Your task to perform on an android device: change notification settings in the gmail app Image 0: 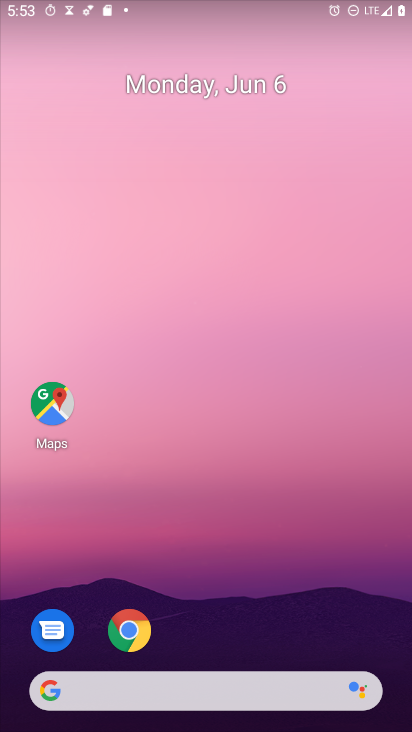
Step 0: drag from (296, 635) to (160, 0)
Your task to perform on an android device: change notification settings in the gmail app Image 1: 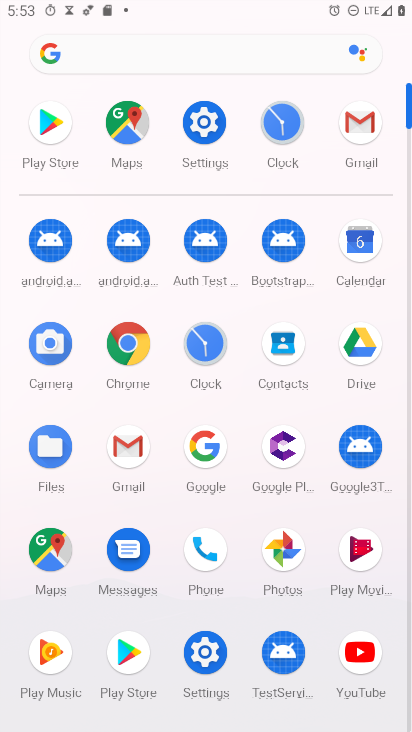
Step 1: click (135, 470)
Your task to perform on an android device: change notification settings in the gmail app Image 2: 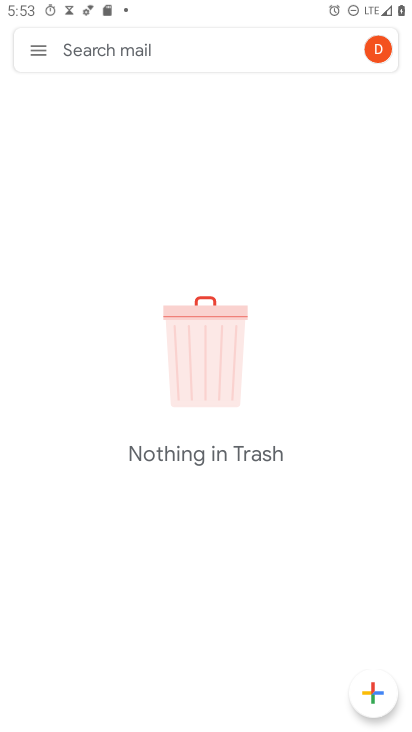
Step 2: click (35, 50)
Your task to perform on an android device: change notification settings in the gmail app Image 3: 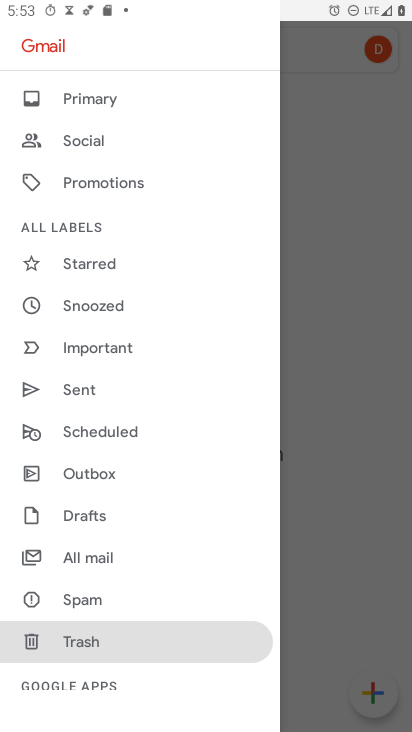
Step 3: drag from (131, 665) to (185, 355)
Your task to perform on an android device: change notification settings in the gmail app Image 4: 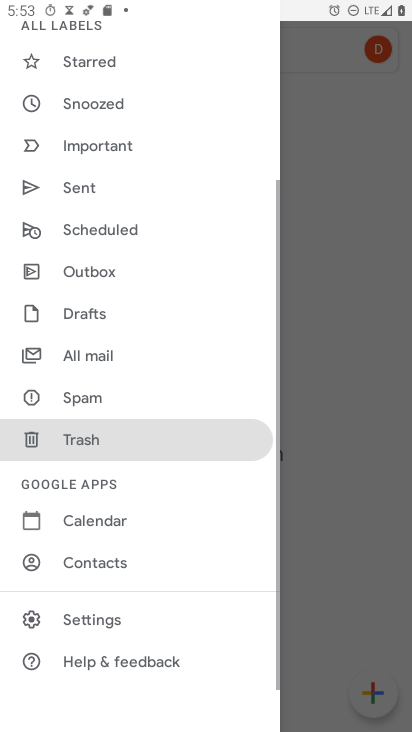
Step 4: click (139, 622)
Your task to perform on an android device: change notification settings in the gmail app Image 5: 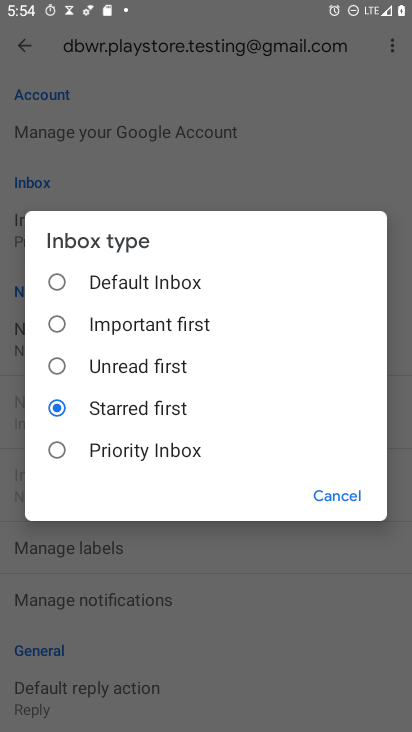
Step 5: click (339, 489)
Your task to perform on an android device: change notification settings in the gmail app Image 6: 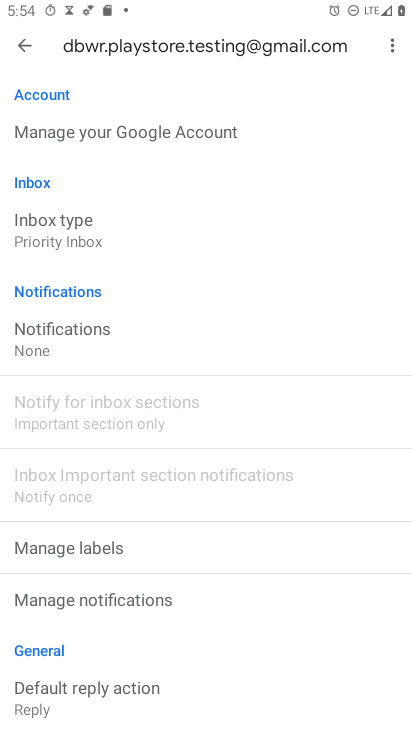
Step 6: click (120, 592)
Your task to perform on an android device: change notification settings in the gmail app Image 7: 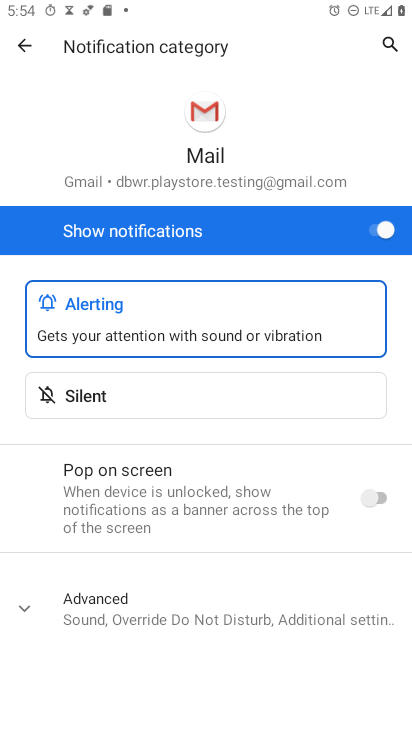
Step 7: click (381, 218)
Your task to perform on an android device: change notification settings in the gmail app Image 8: 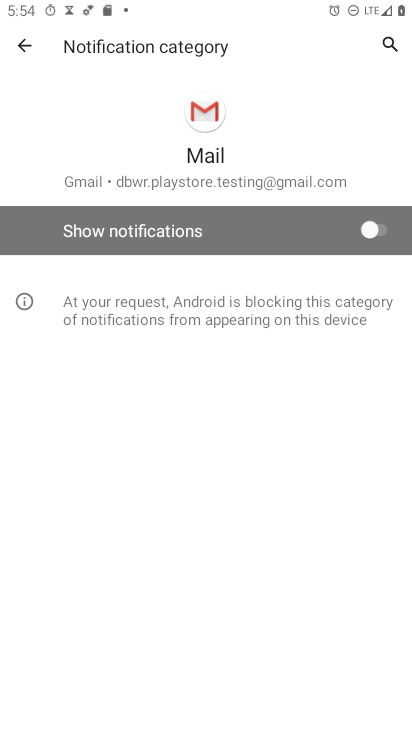
Step 8: task complete